Your task to perform on an android device: turn on wifi Image 0: 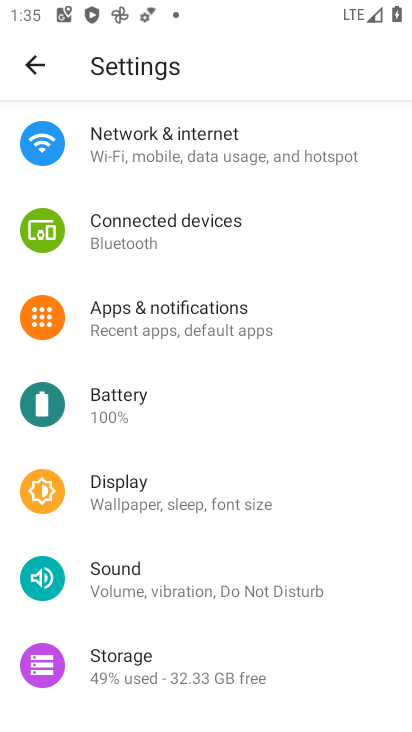
Step 0: drag from (342, 614) to (355, 485)
Your task to perform on an android device: turn on wifi Image 1: 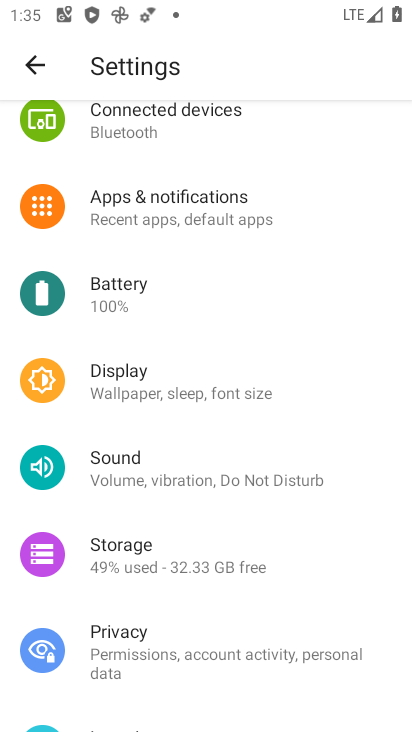
Step 1: drag from (349, 643) to (359, 447)
Your task to perform on an android device: turn on wifi Image 2: 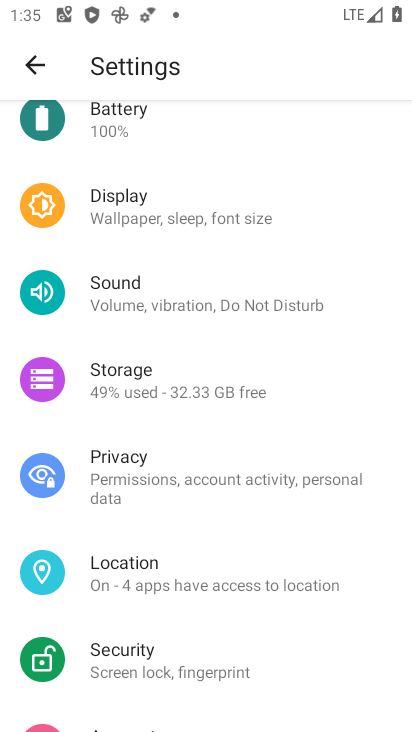
Step 2: drag from (365, 623) to (369, 473)
Your task to perform on an android device: turn on wifi Image 3: 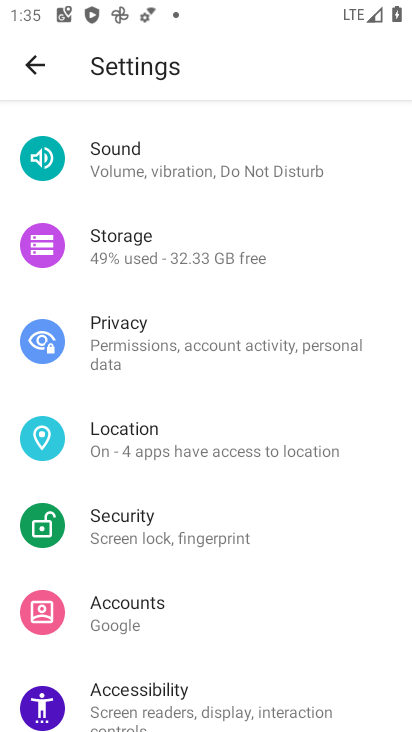
Step 3: drag from (358, 624) to (360, 430)
Your task to perform on an android device: turn on wifi Image 4: 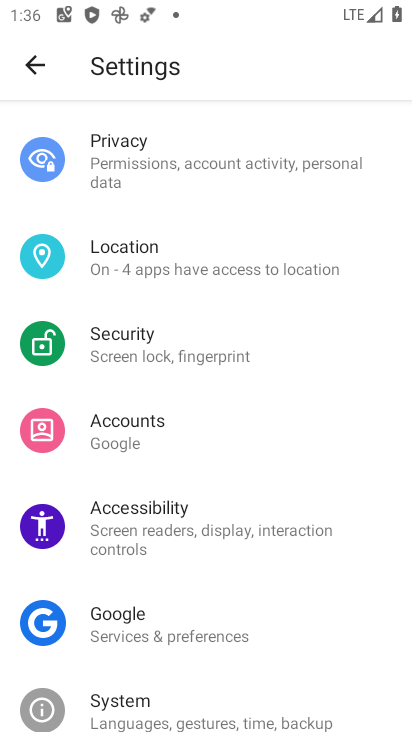
Step 4: drag from (352, 636) to (358, 434)
Your task to perform on an android device: turn on wifi Image 5: 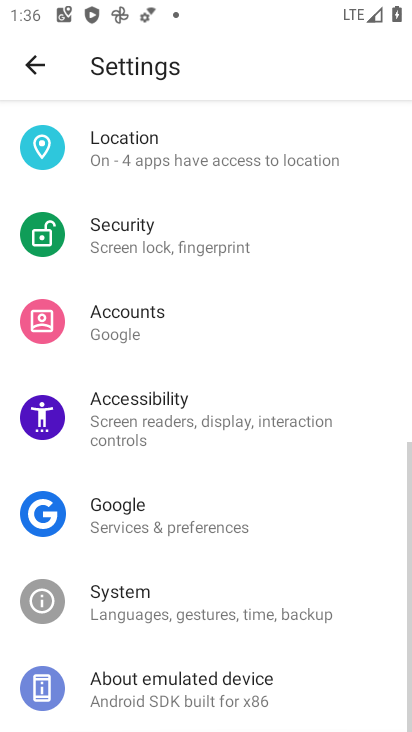
Step 5: drag from (369, 350) to (363, 471)
Your task to perform on an android device: turn on wifi Image 6: 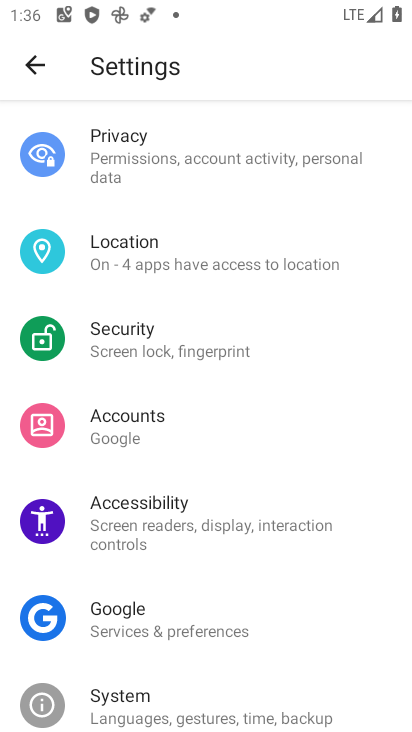
Step 6: drag from (356, 354) to (365, 448)
Your task to perform on an android device: turn on wifi Image 7: 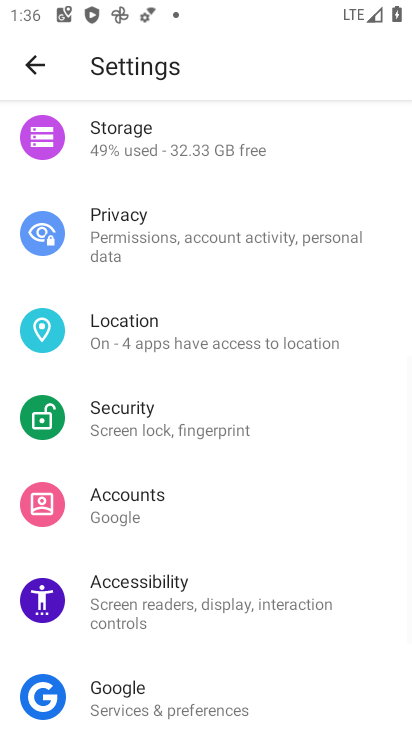
Step 7: drag from (356, 382) to (355, 479)
Your task to perform on an android device: turn on wifi Image 8: 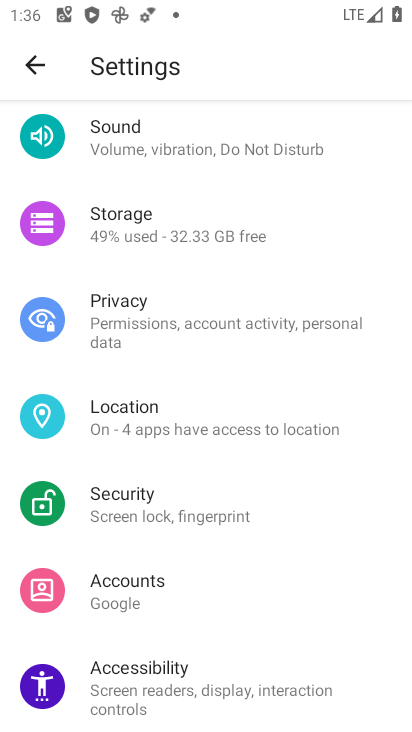
Step 8: drag from (339, 371) to (334, 476)
Your task to perform on an android device: turn on wifi Image 9: 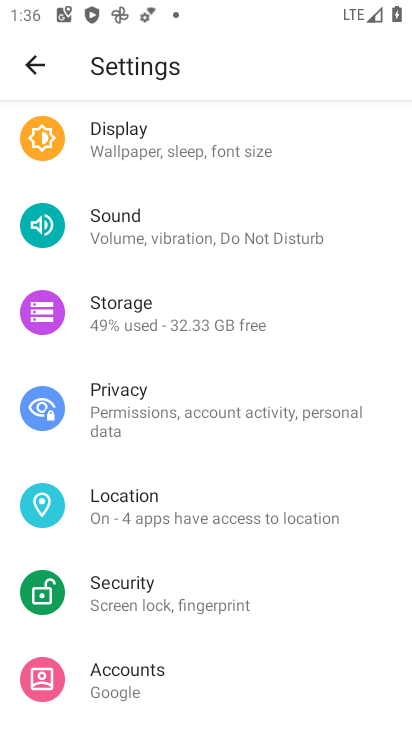
Step 9: drag from (340, 360) to (354, 501)
Your task to perform on an android device: turn on wifi Image 10: 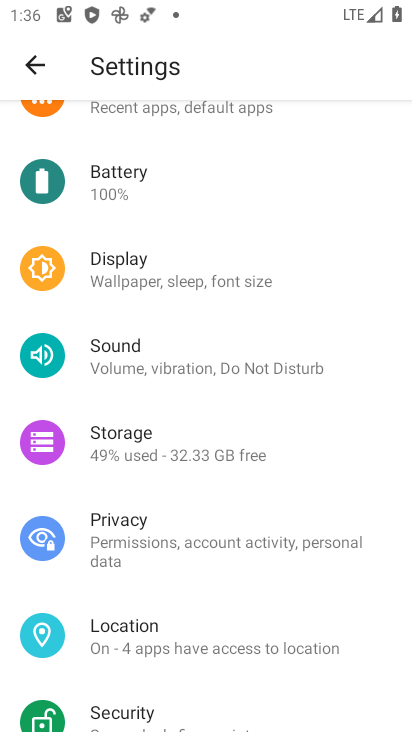
Step 10: drag from (361, 261) to (361, 404)
Your task to perform on an android device: turn on wifi Image 11: 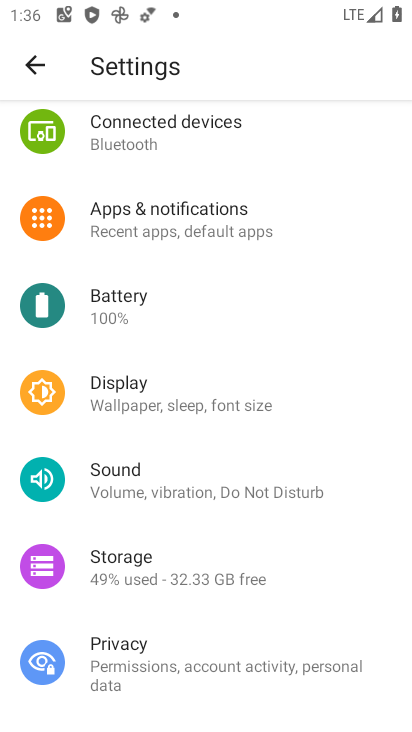
Step 11: drag from (329, 239) to (337, 366)
Your task to perform on an android device: turn on wifi Image 12: 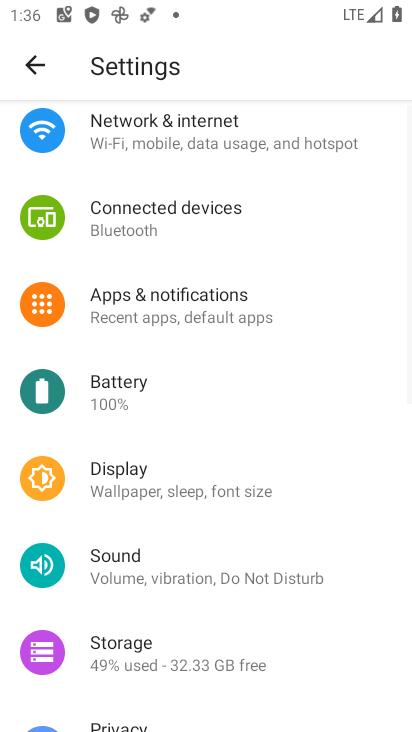
Step 12: drag from (328, 230) to (325, 369)
Your task to perform on an android device: turn on wifi Image 13: 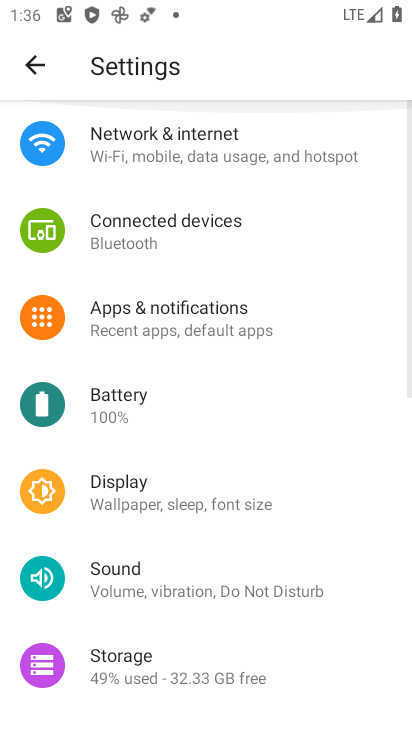
Step 13: click (312, 148)
Your task to perform on an android device: turn on wifi Image 14: 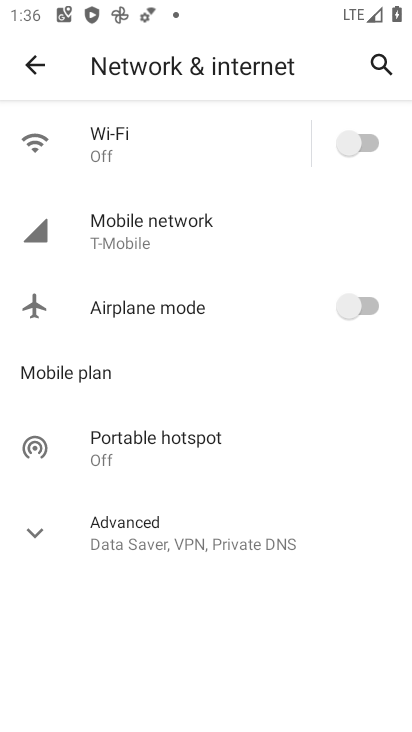
Step 14: click (336, 153)
Your task to perform on an android device: turn on wifi Image 15: 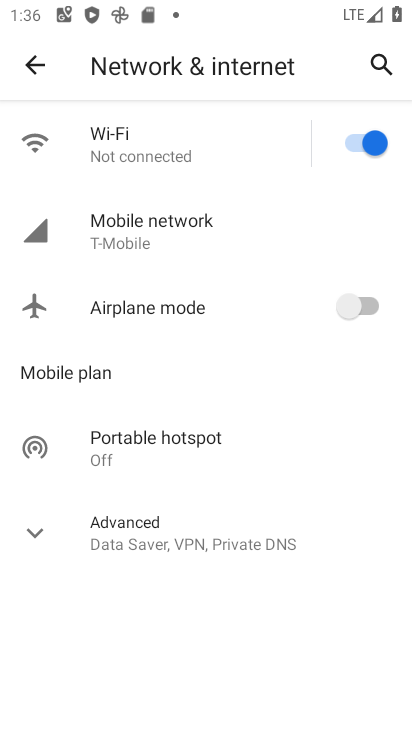
Step 15: task complete